Your task to perform on an android device: turn on javascript in the chrome app Image 0: 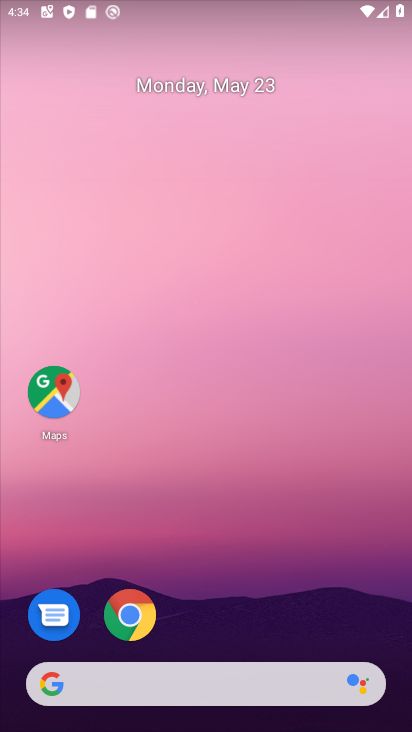
Step 0: click (134, 614)
Your task to perform on an android device: turn on javascript in the chrome app Image 1: 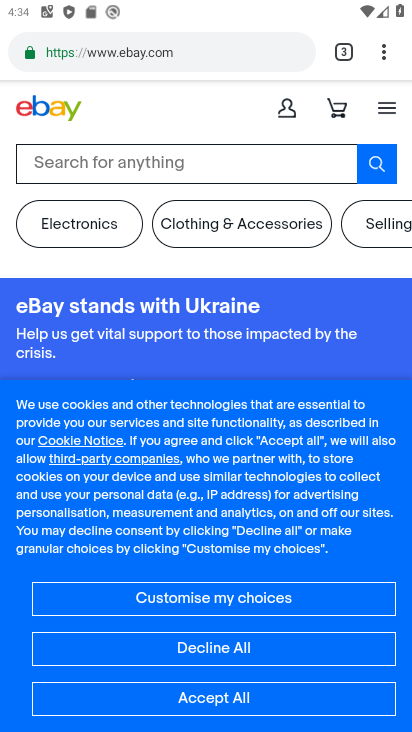
Step 1: drag from (382, 52) to (201, 636)
Your task to perform on an android device: turn on javascript in the chrome app Image 2: 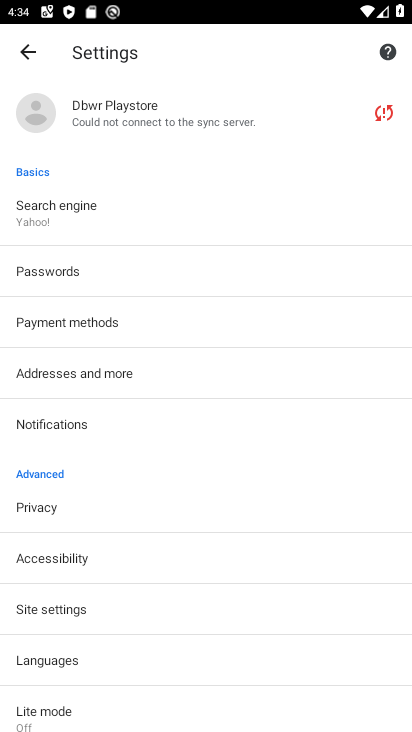
Step 2: click (43, 605)
Your task to perform on an android device: turn on javascript in the chrome app Image 3: 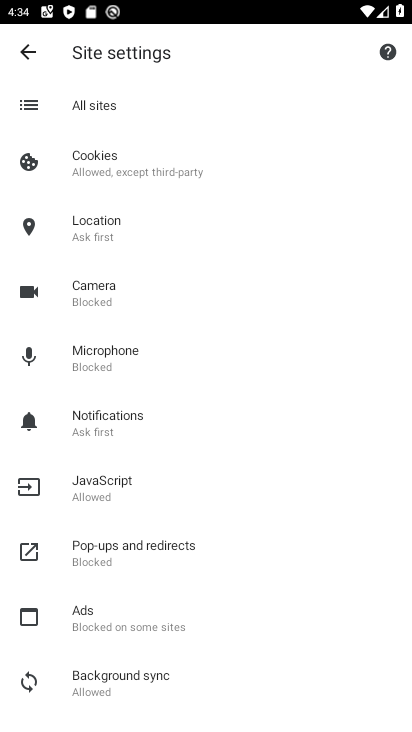
Step 3: click (113, 481)
Your task to perform on an android device: turn on javascript in the chrome app Image 4: 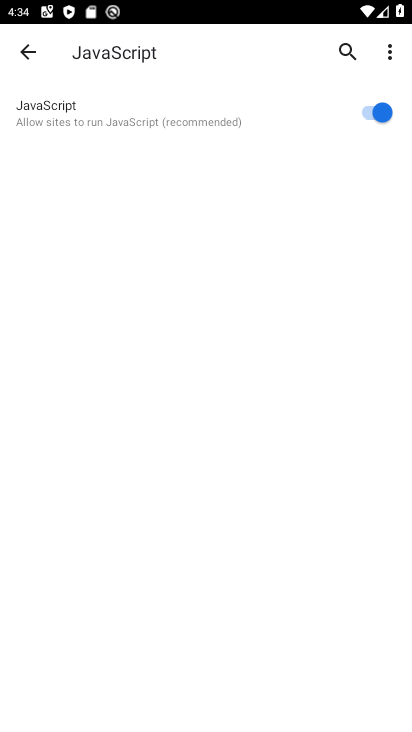
Step 4: task complete